Your task to perform on an android device: Search for razer blade on newegg, select the first entry, and add it to the cart. Image 0: 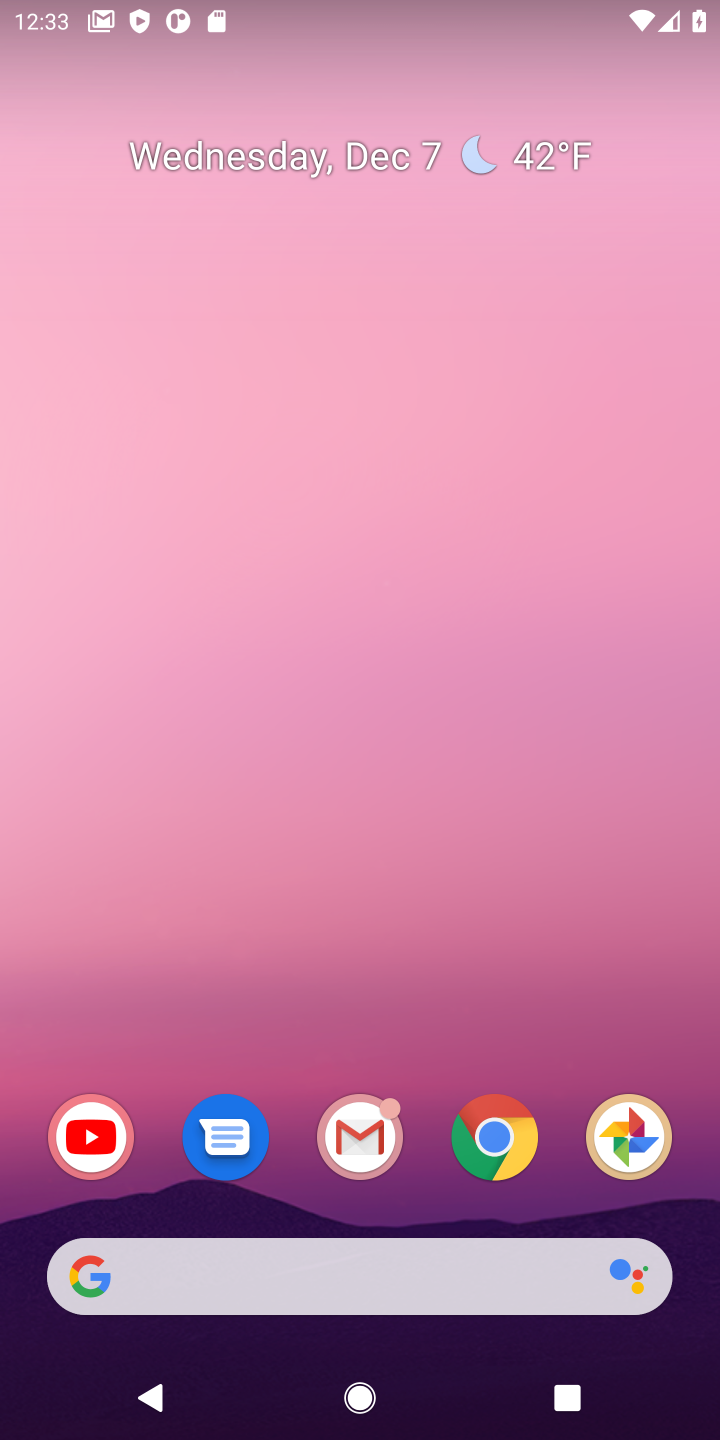
Step 0: click (334, 577)
Your task to perform on an android device: Search for razer blade on newegg, select the first entry, and add it to the cart. Image 1: 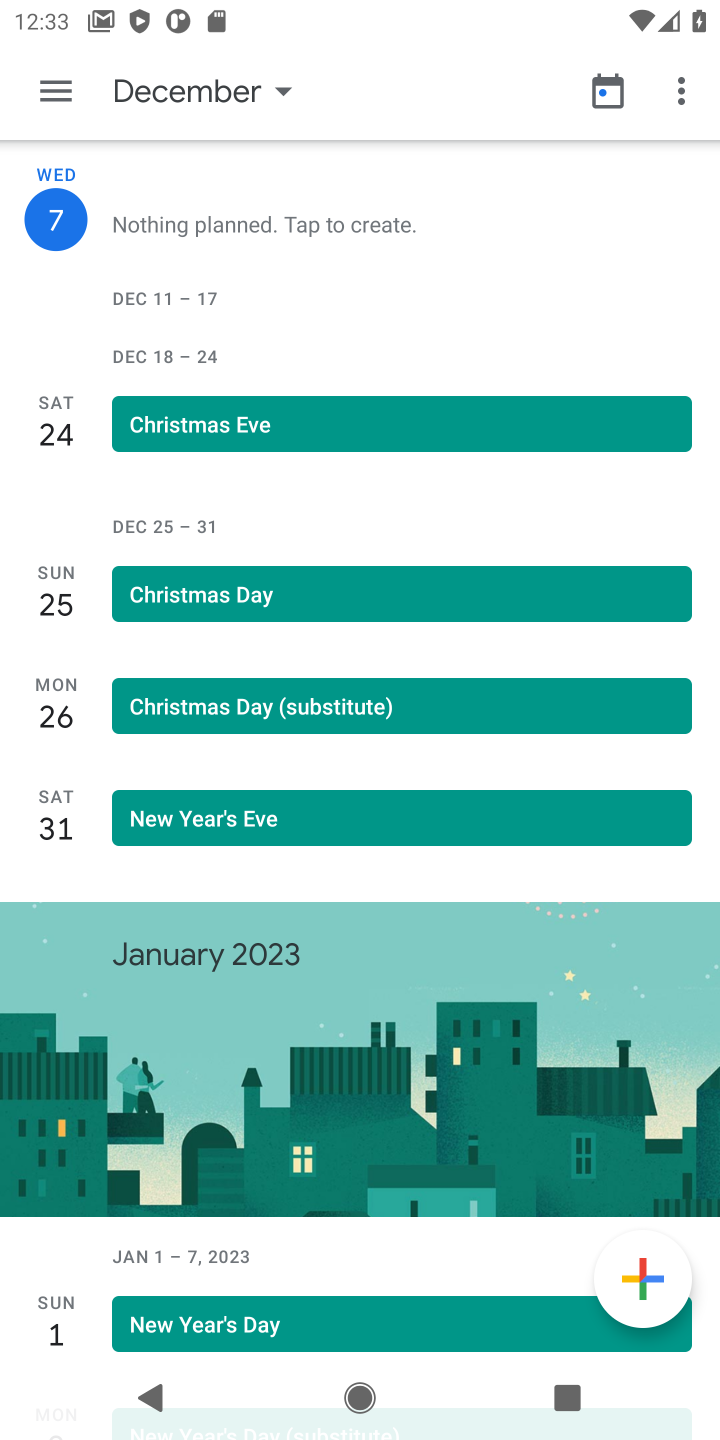
Step 1: press home button
Your task to perform on an android device: Search for razer blade on newegg, select the first entry, and add it to the cart. Image 2: 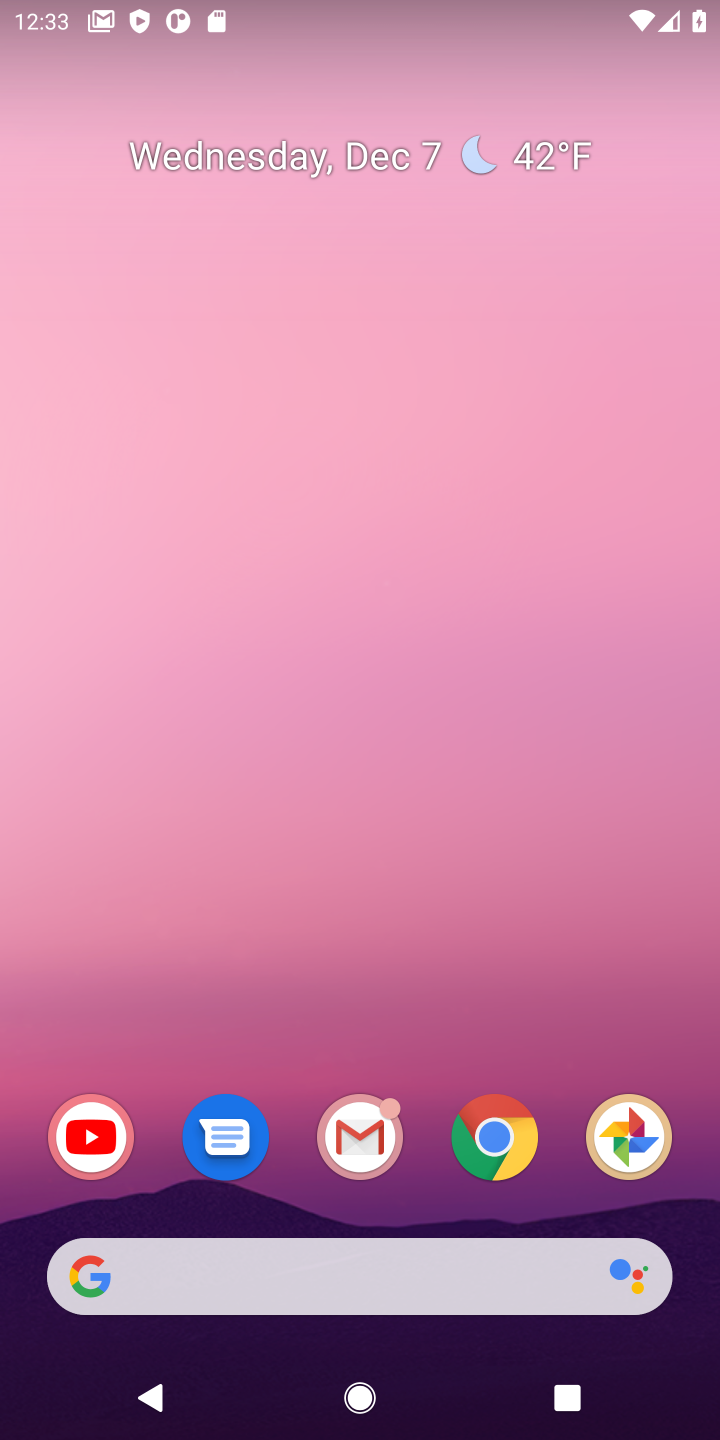
Step 2: drag from (340, 1232) to (382, 596)
Your task to perform on an android device: Search for razer blade on newegg, select the first entry, and add it to the cart. Image 3: 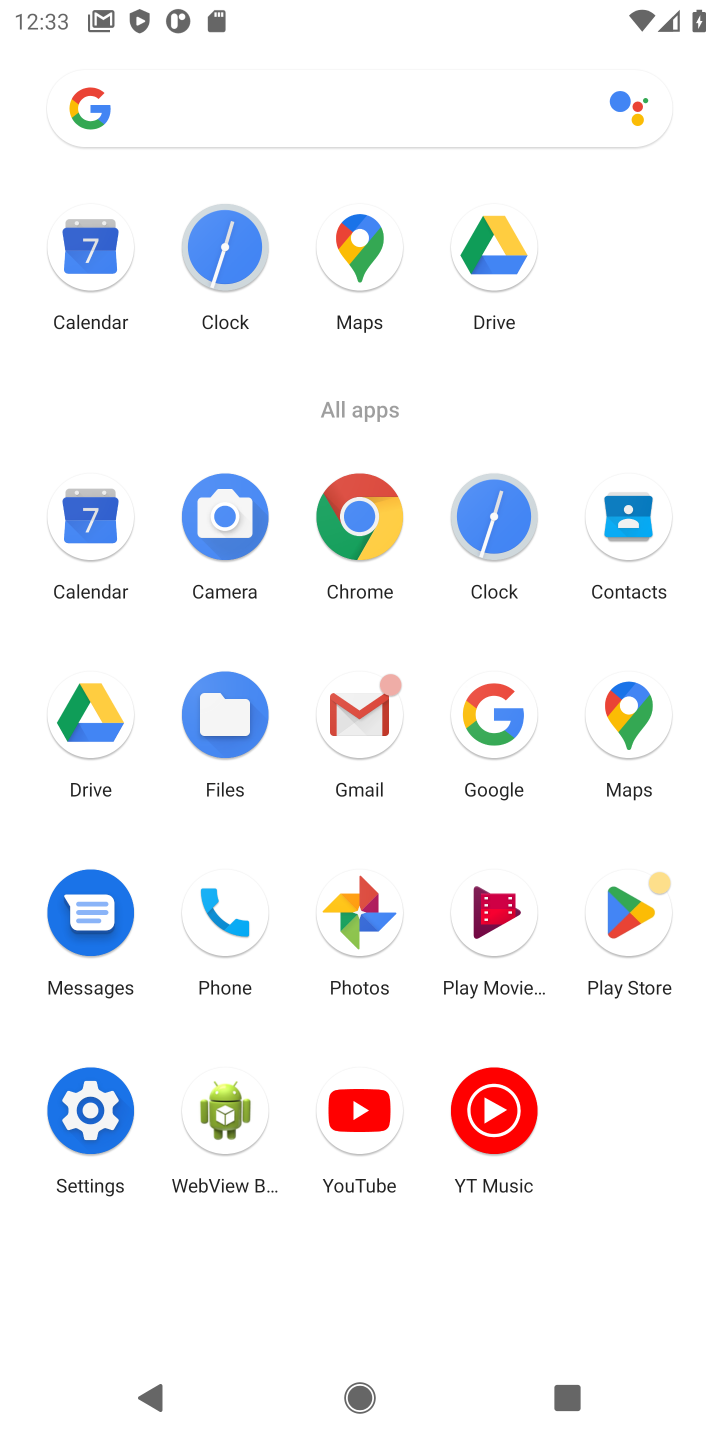
Step 3: click (477, 688)
Your task to perform on an android device: Search for razer blade on newegg, select the first entry, and add it to the cart. Image 4: 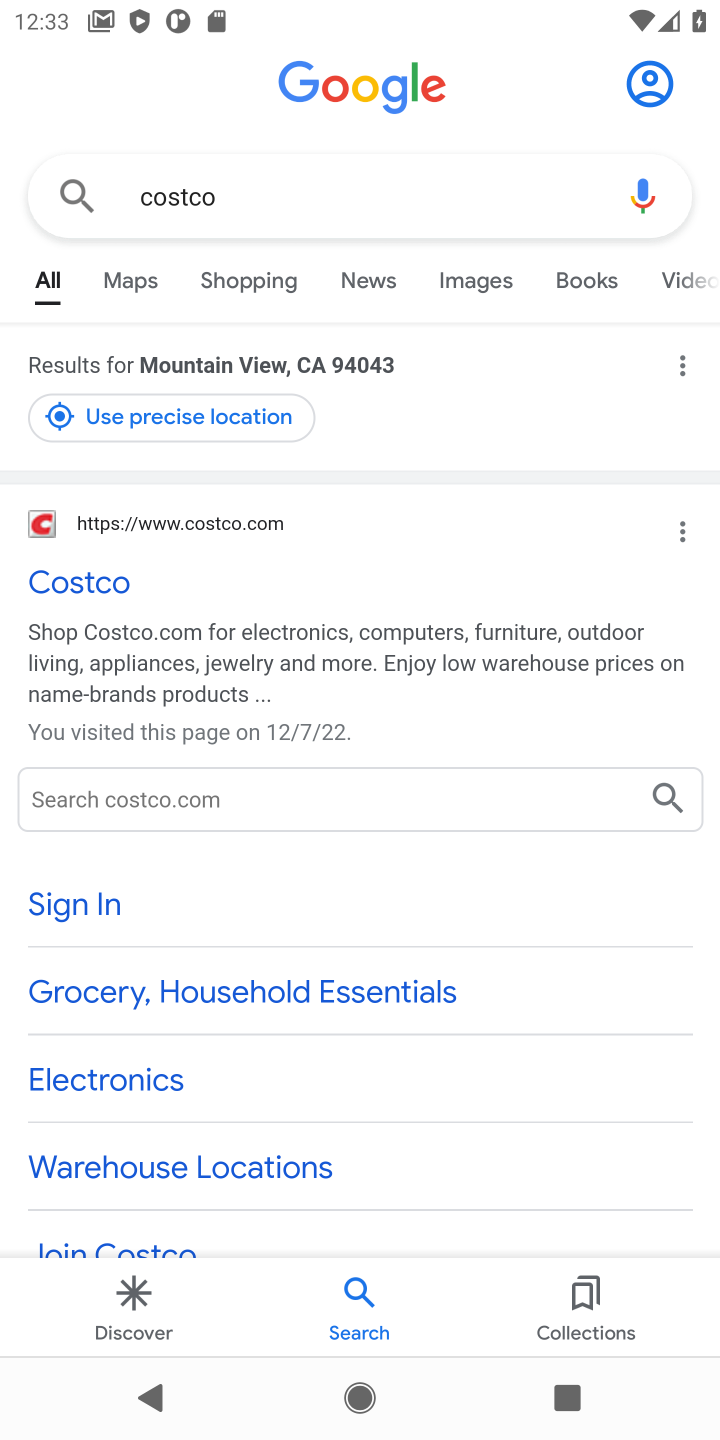
Step 4: click (302, 193)
Your task to perform on an android device: Search for razer blade on newegg, select the first entry, and add it to the cart. Image 5: 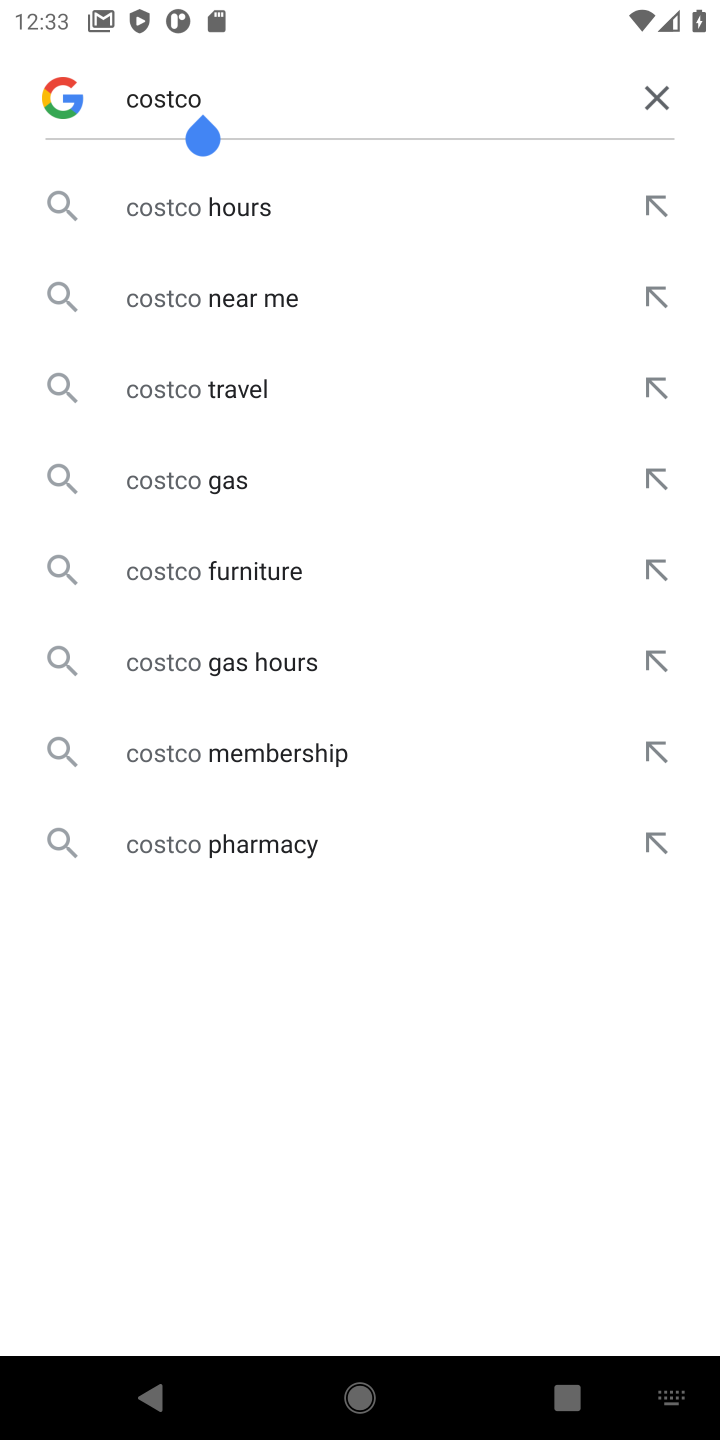
Step 5: click (647, 92)
Your task to perform on an android device: Search for razer blade on newegg, select the first entry, and add it to the cart. Image 6: 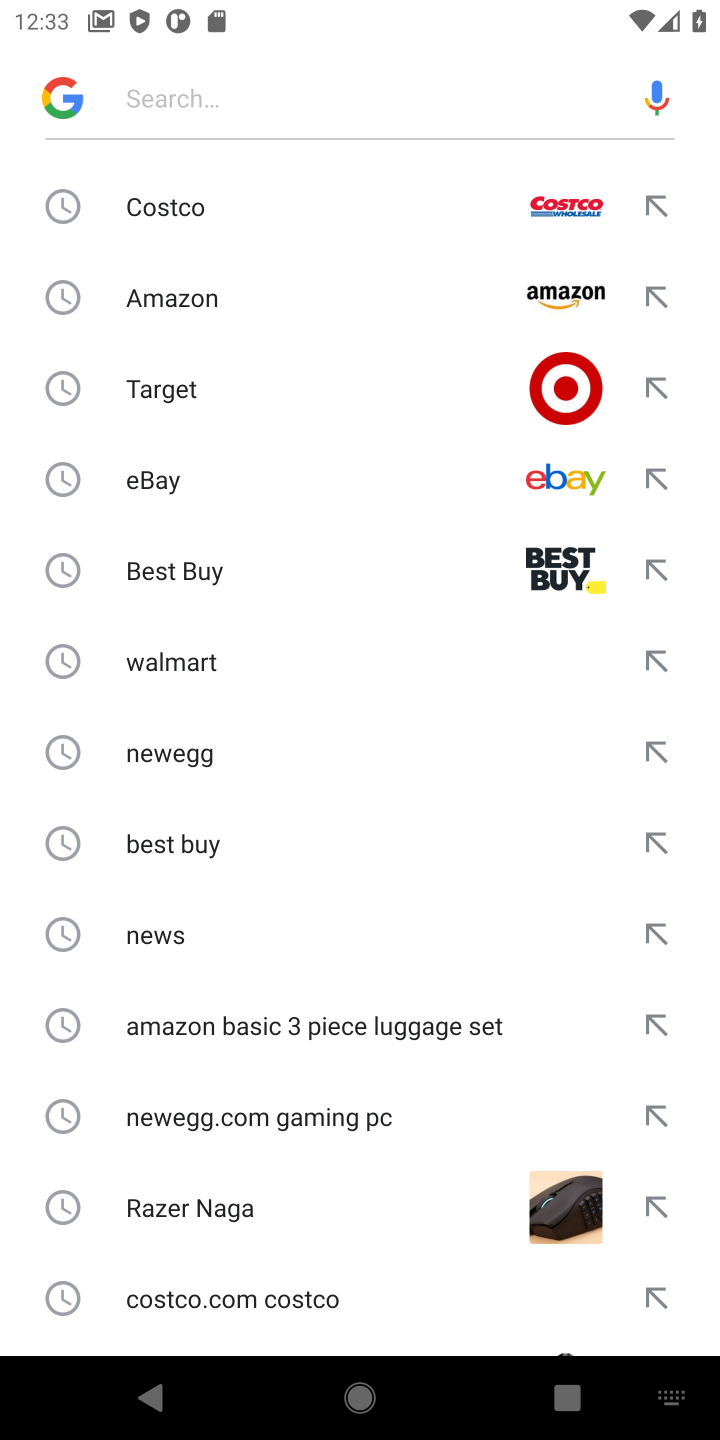
Step 6: click (182, 765)
Your task to perform on an android device: Search for razer blade on newegg, select the first entry, and add it to the cart. Image 7: 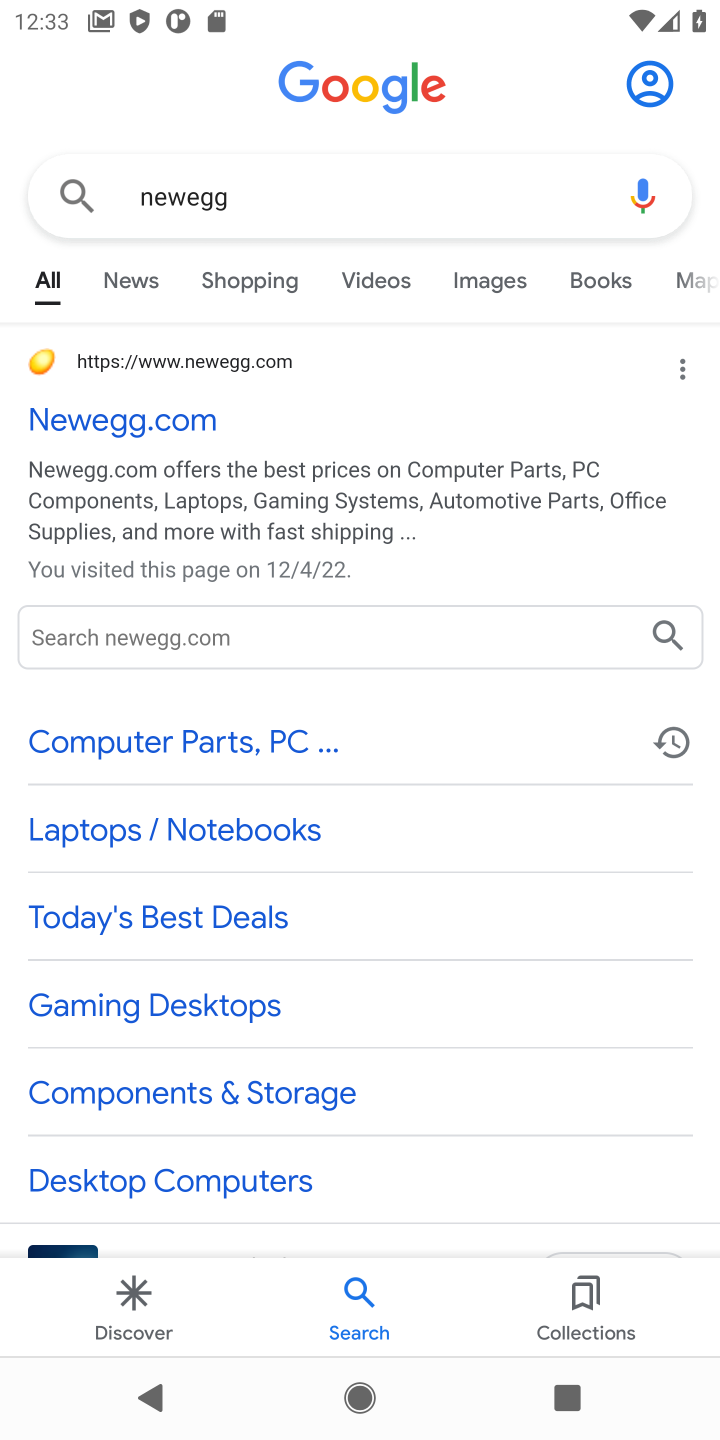
Step 7: click (132, 423)
Your task to perform on an android device: Search for razer blade on newegg, select the first entry, and add it to the cart. Image 8: 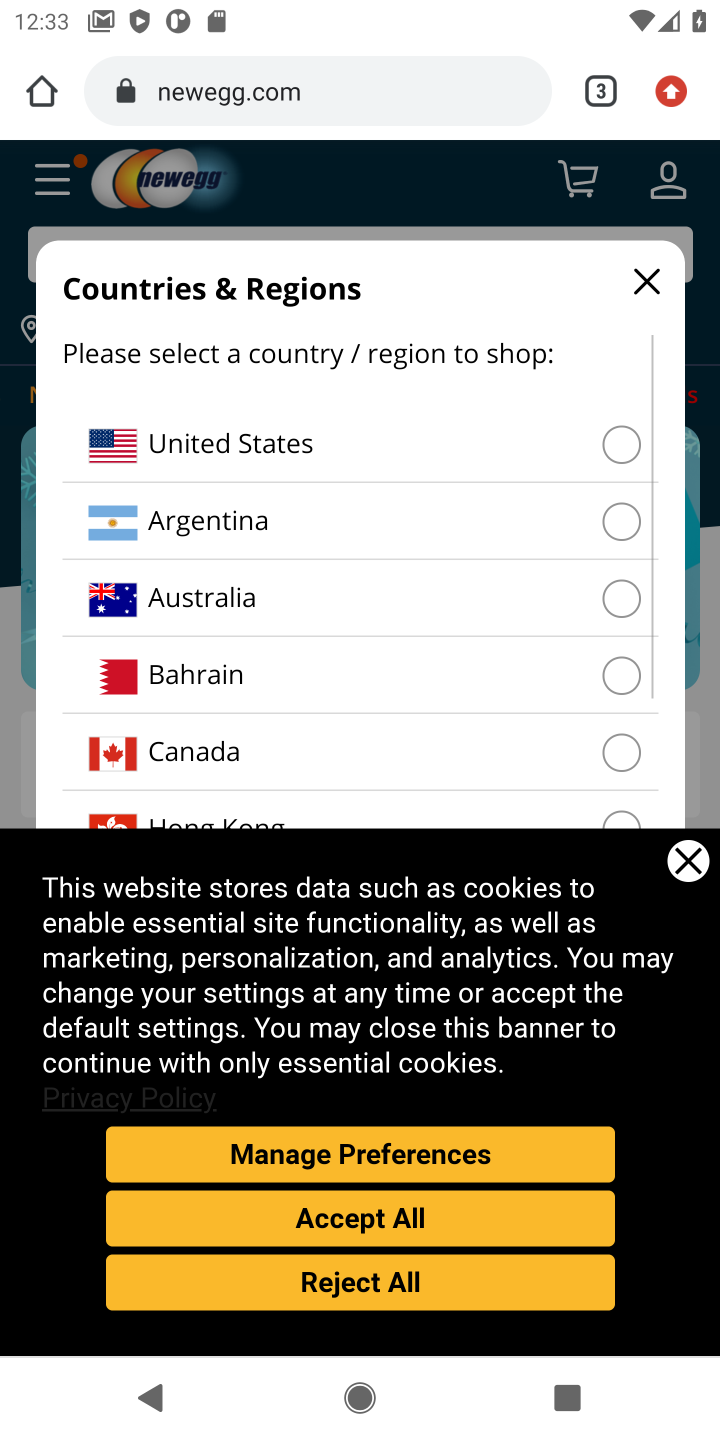
Step 8: click (649, 286)
Your task to perform on an android device: Search for razer blade on newegg, select the first entry, and add it to the cart. Image 9: 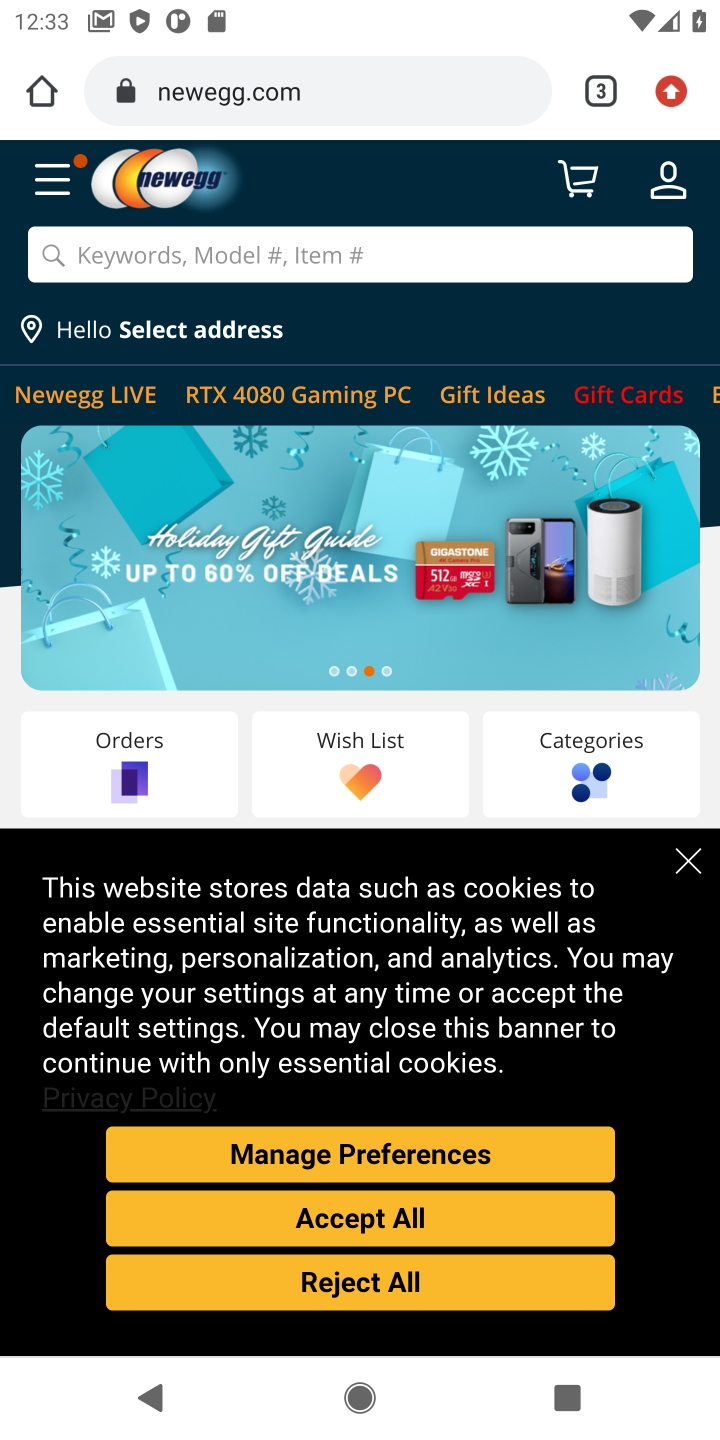
Step 9: click (376, 251)
Your task to perform on an android device: Search for razer blade on newegg, select the first entry, and add it to the cart. Image 10: 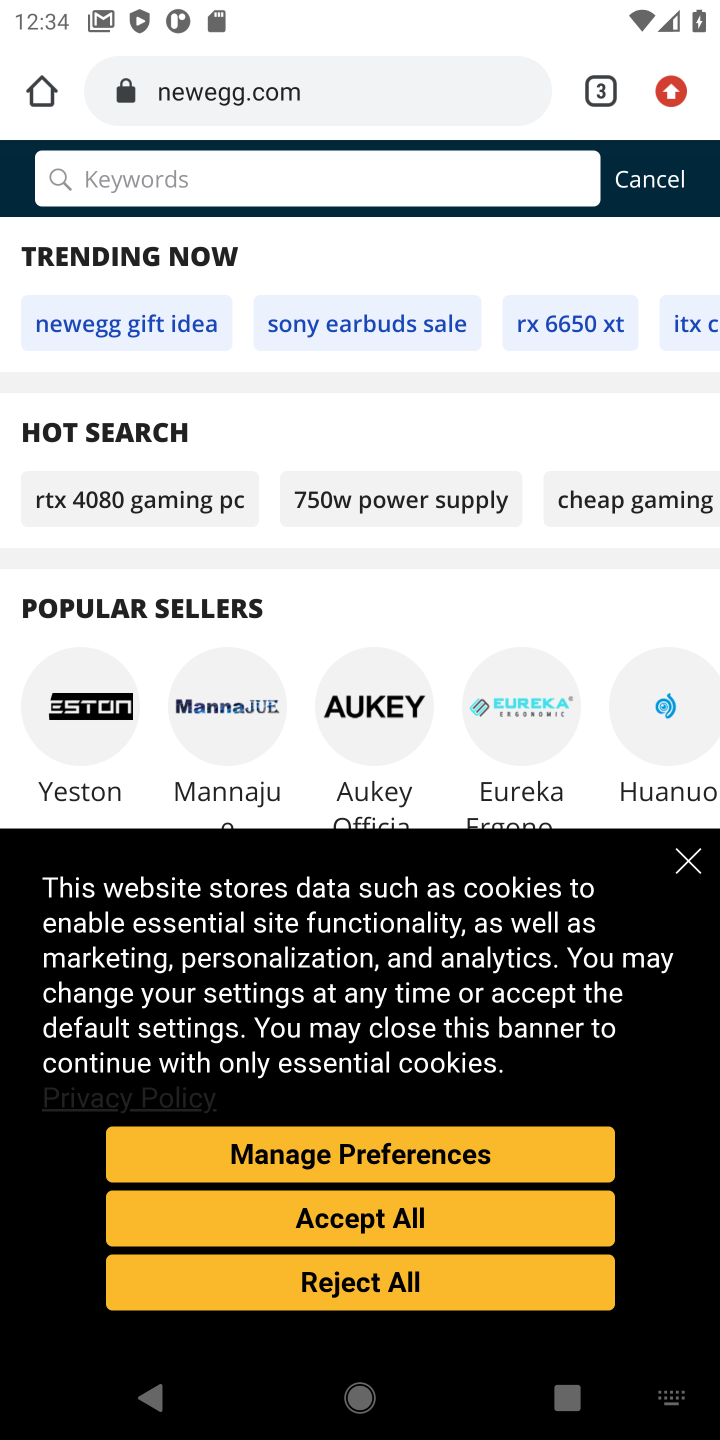
Step 10: type "razer blade"
Your task to perform on an android device: Search for razer blade on newegg, select the first entry, and add it to the cart. Image 11: 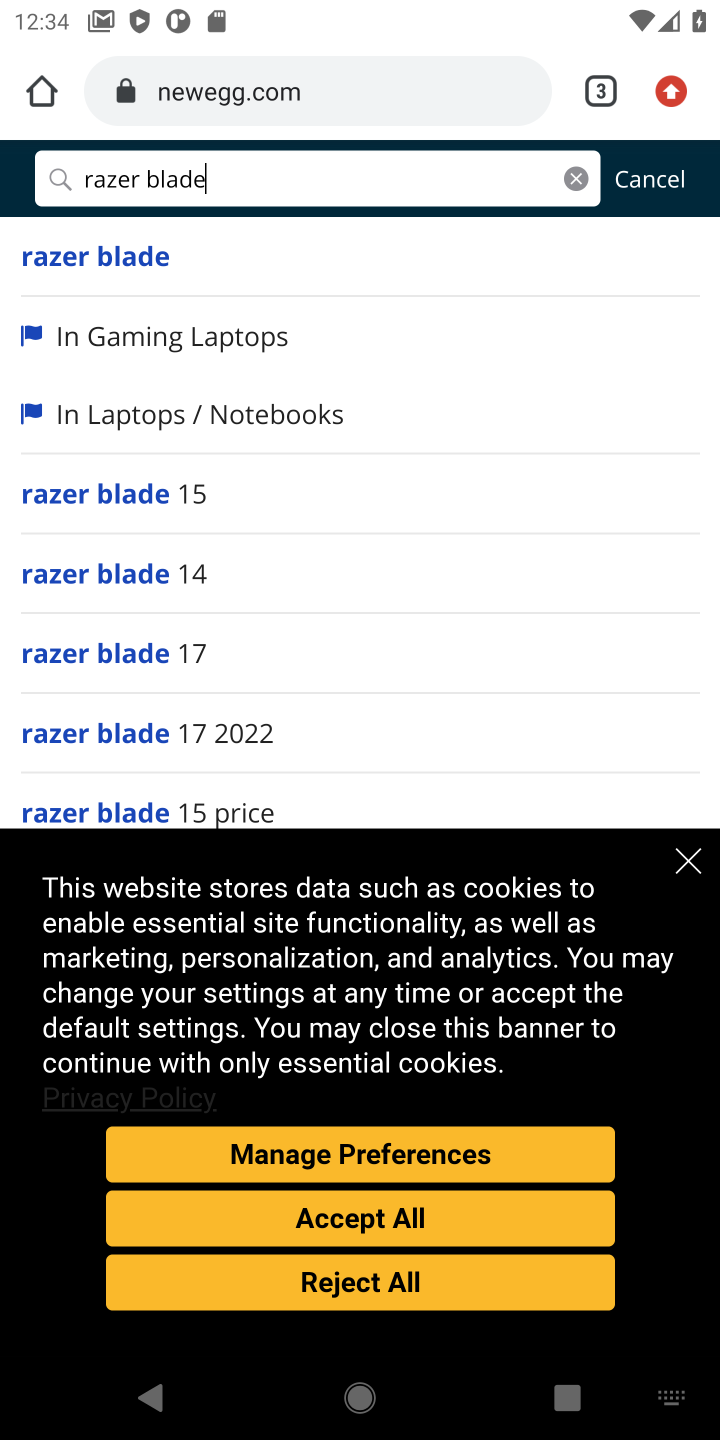
Step 11: click (82, 255)
Your task to perform on an android device: Search for razer blade on newegg, select the first entry, and add it to the cart. Image 12: 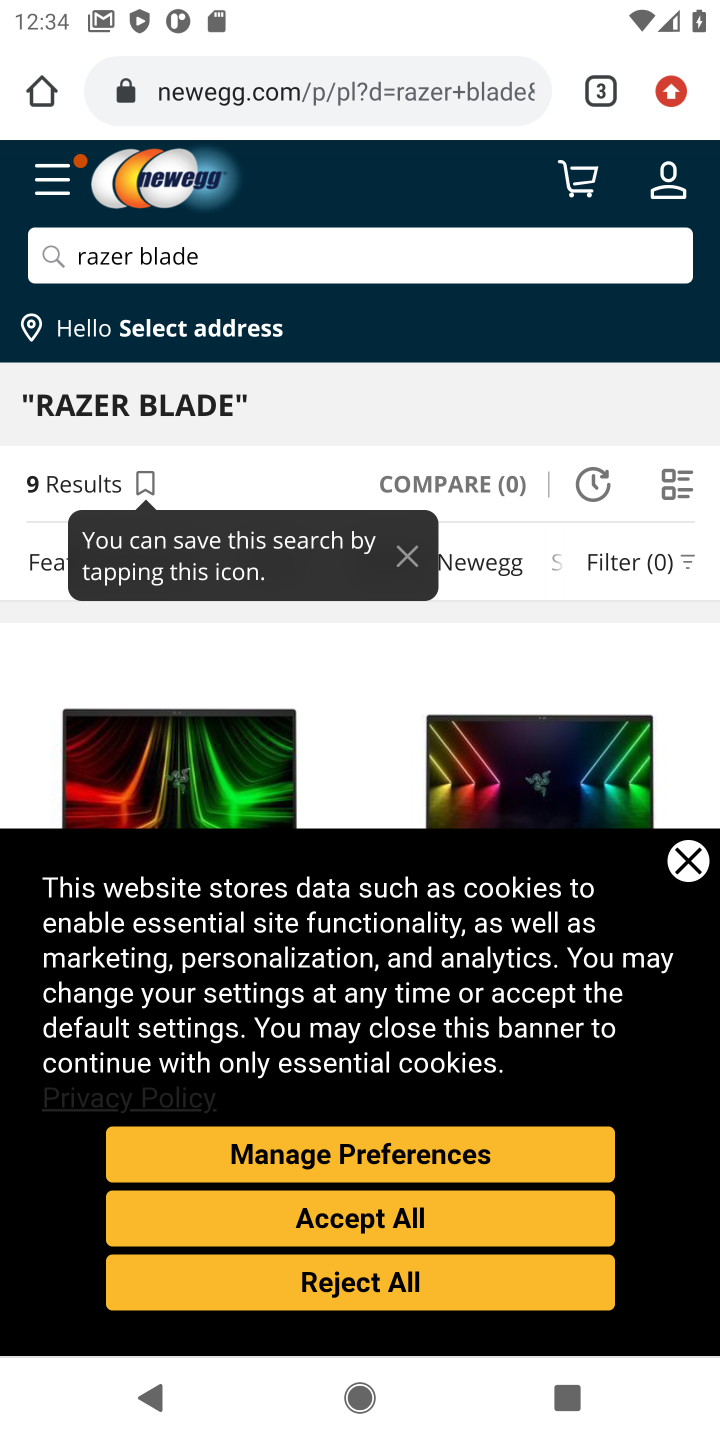
Step 12: click (414, 573)
Your task to perform on an android device: Search for razer blade on newegg, select the first entry, and add it to the cart. Image 13: 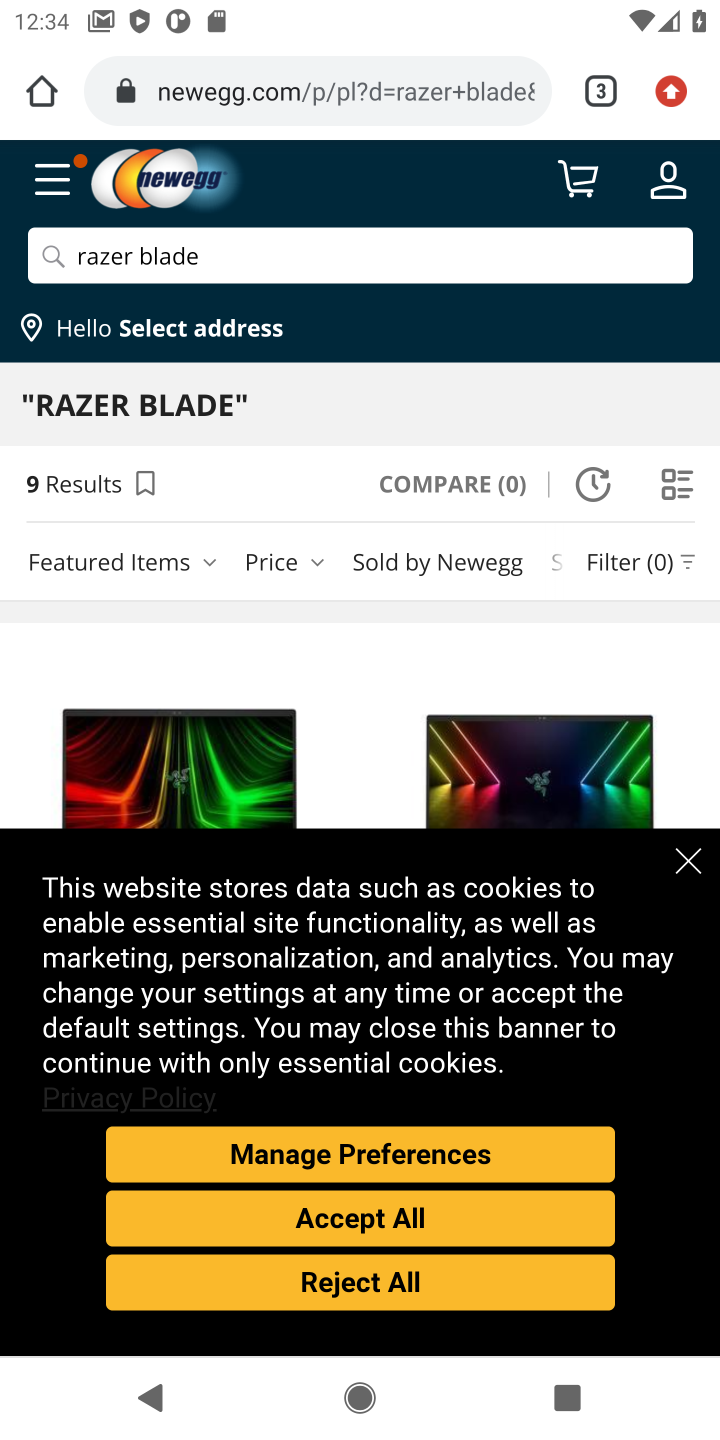
Step 13: click (112, 415)
Your task to perform on an android device: Search for razer blade on newegg, select the first entry, and add it to the cart. Image 14: 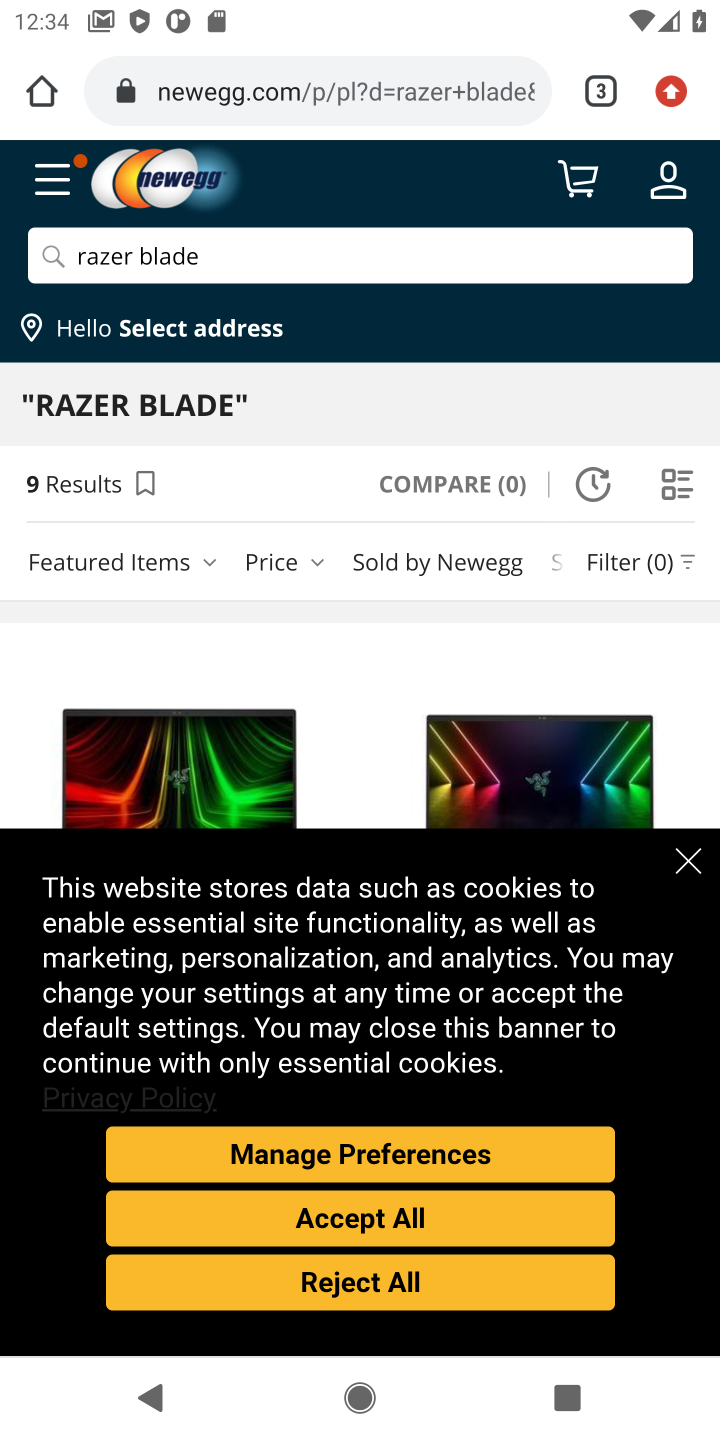
Step 14: click (686, 864)
Your task to perform on an android device: Search for razer blade on newegg, select the first entry, and add it to the cart. Image 15: 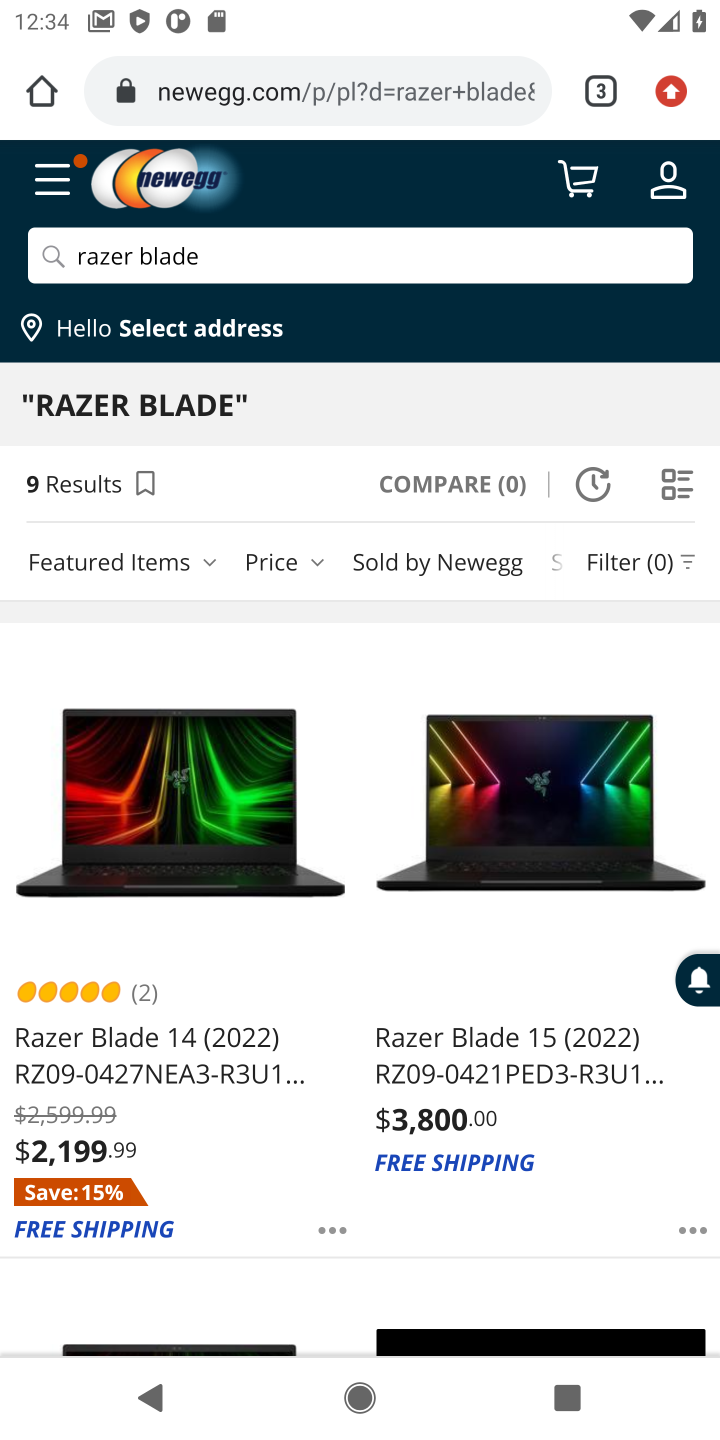
Step 15: drag from (193, 1102) to (246, 570)
Your task to perform on an android device: Search for razer blade on newegg, select the first entry, and add it to the cart. Image 16: 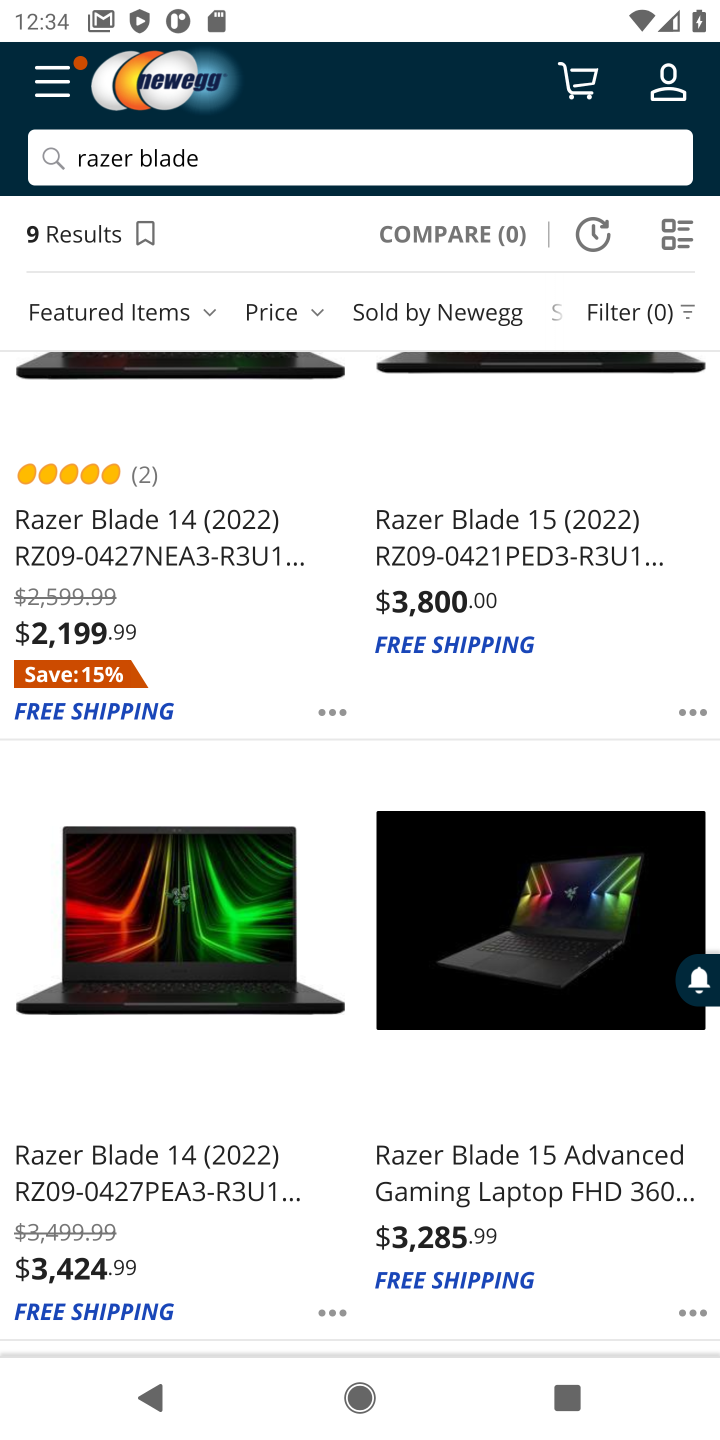
Step 16: click (204, 527)
Your task to perform on an android device: Search for razer blade on newegg, select the first entry, and add it to the cart. Image 17: 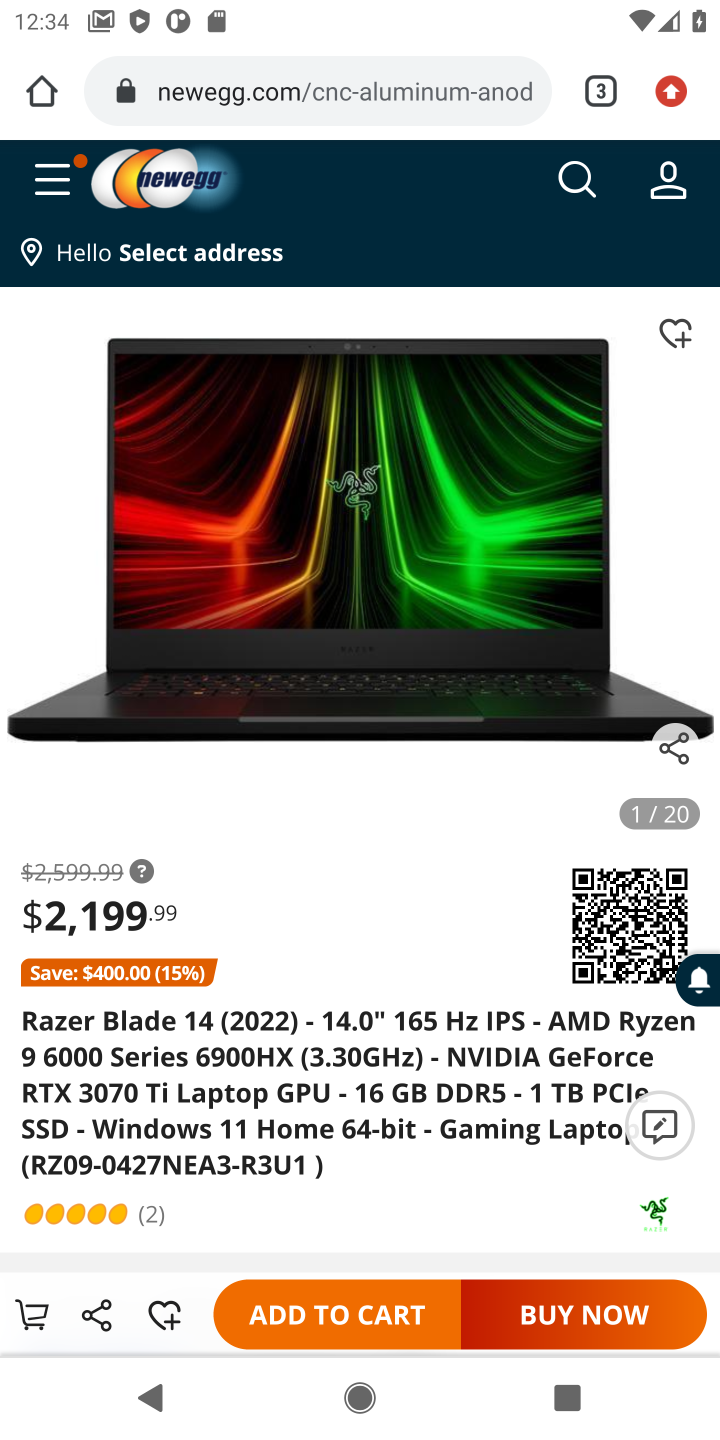
Step 17: click (351, 1309)
Your task to perform on an android device: Search for razer blade on newegg, select the first entry, and add it to the cart. Image 18: 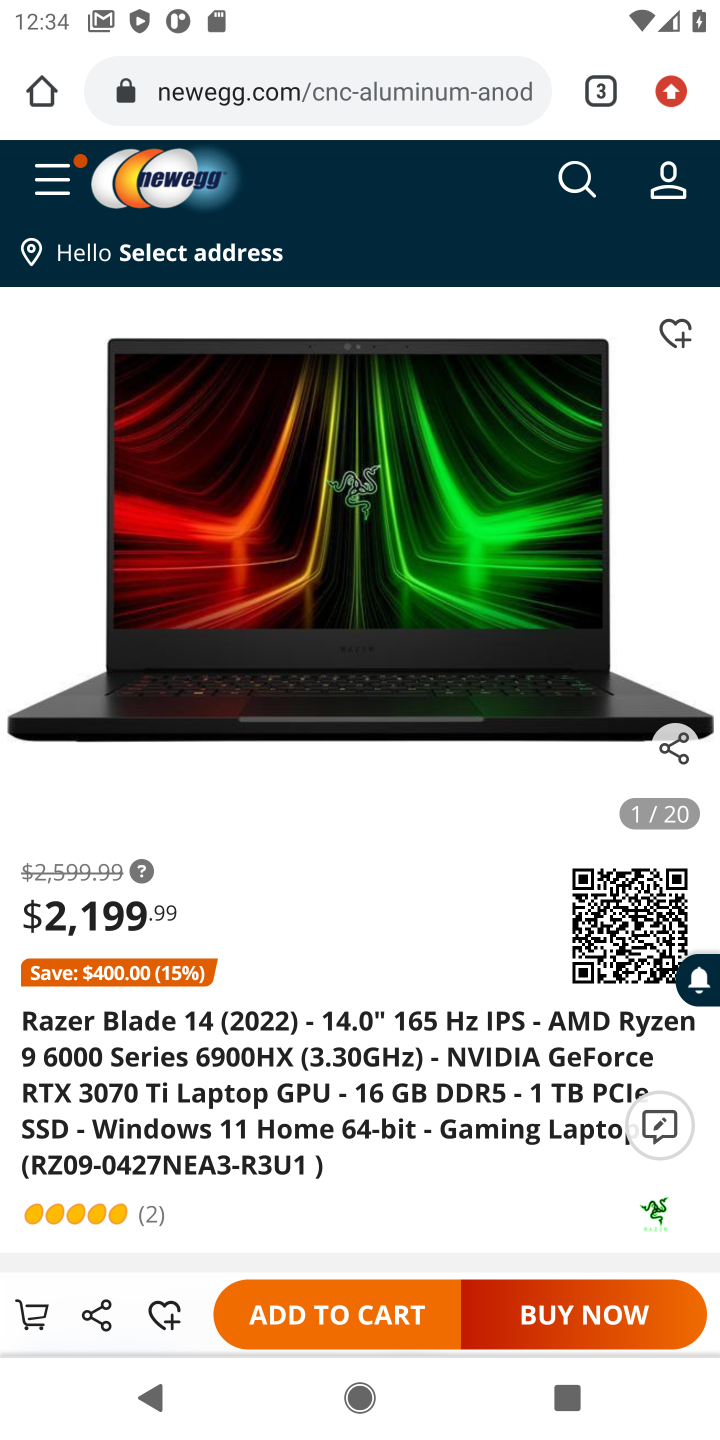
Step 18: click (332, 1317)
Your task to perform on an android device: Search for razer blade on newegg, select the first entry, and add it to the cart. Image 19: 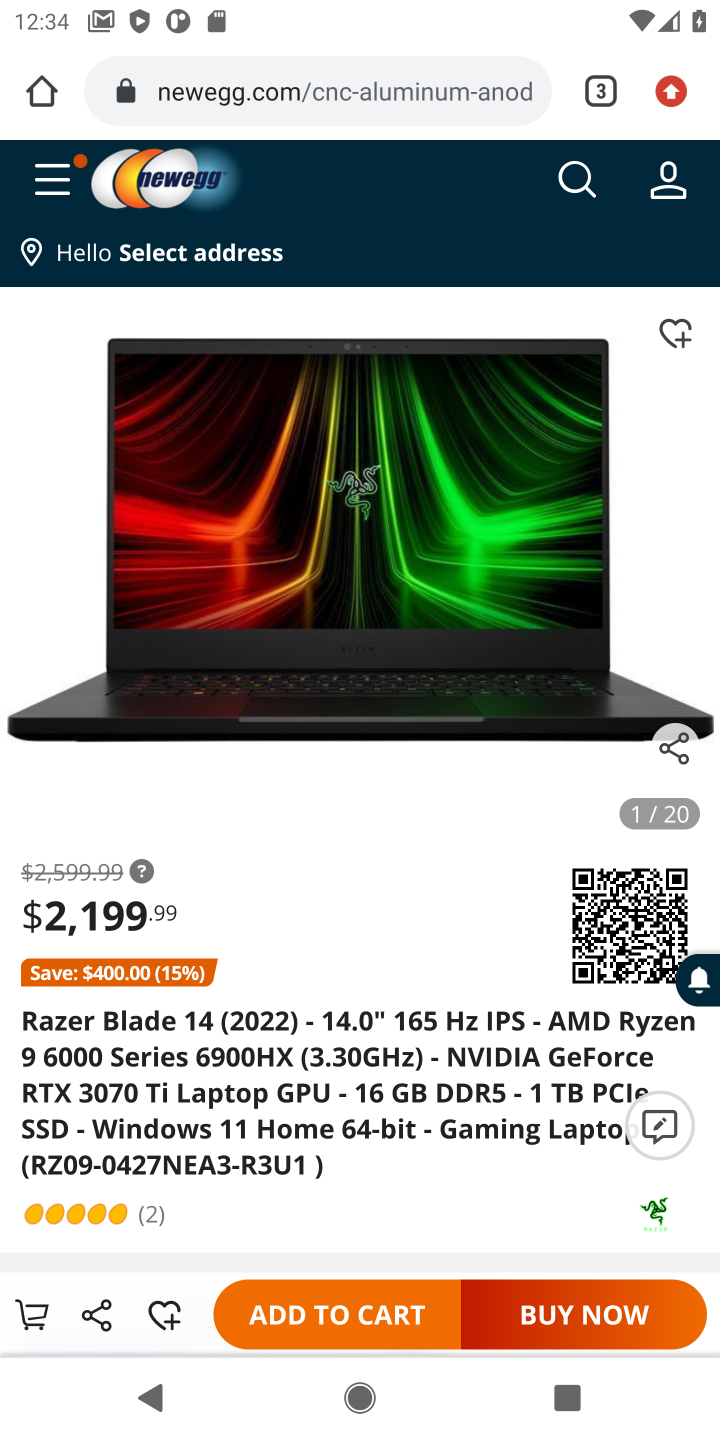
Step 19: click (334, 1315)
Your task to perform on an android device: Search for razer blade on newegg, select the first entry, and add it to the cart. Image 20: 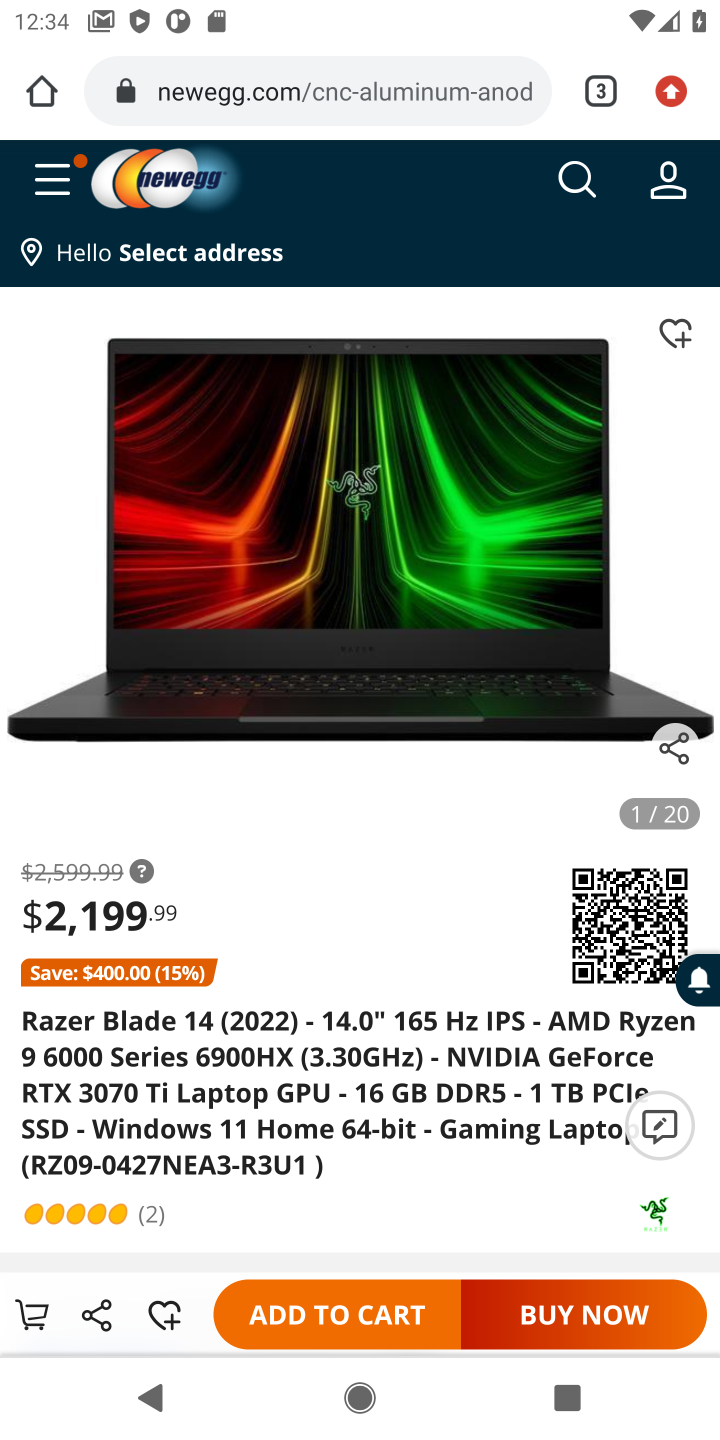
Step 20: click (334, 1315)
Your task to perform on an android device: Search for razer blade on newegg, select the first entry, and add it to the cart. Image 21: 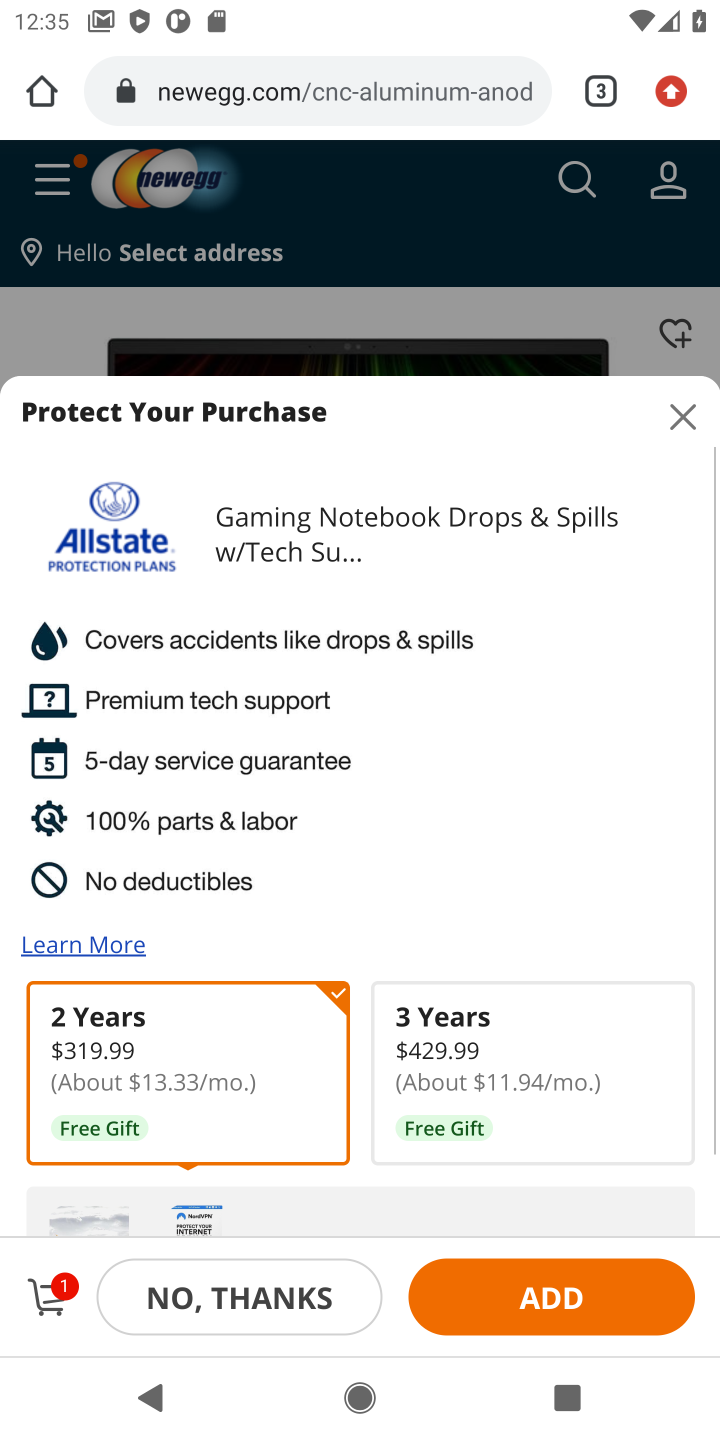
Step 21: task complete